Your task to perform on an android device: Open Chrome and go to settings Image 0: 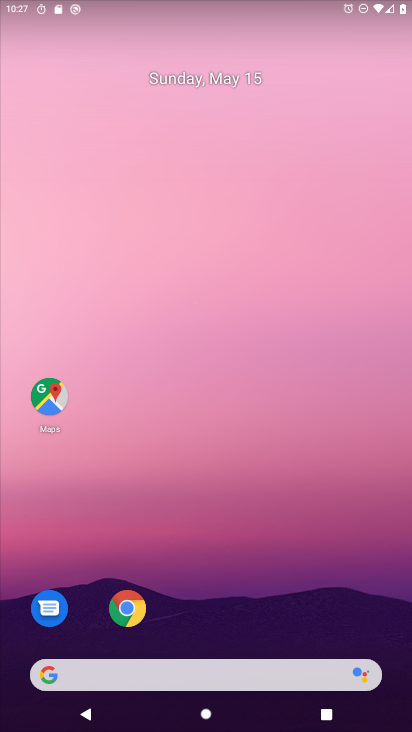
Step 0: drag from (216, 568) to (267, 111)
Your task to perform on an android device: Open Chrome and go to settings Image 1: 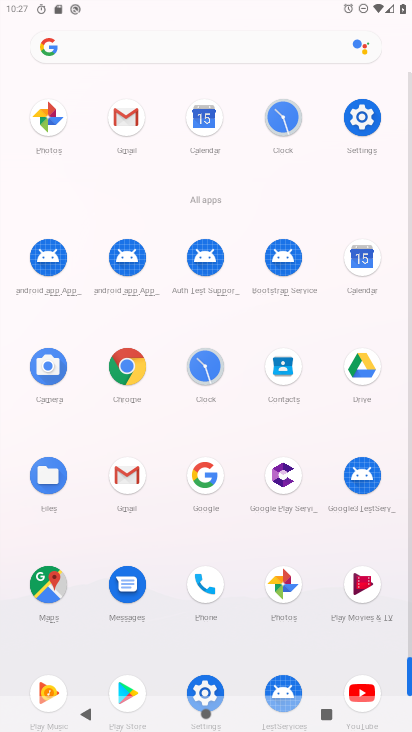
Step 1: click (132, 379)
Your task to perform on an android device: Open Chrome and go to settings Image 2: 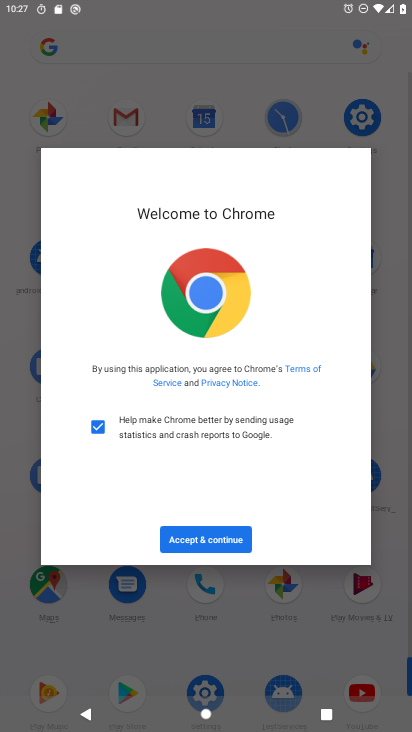
Step 2: click (180, 544)
Your task to perform on an android device: Open Chrome and go to settings Image 3: 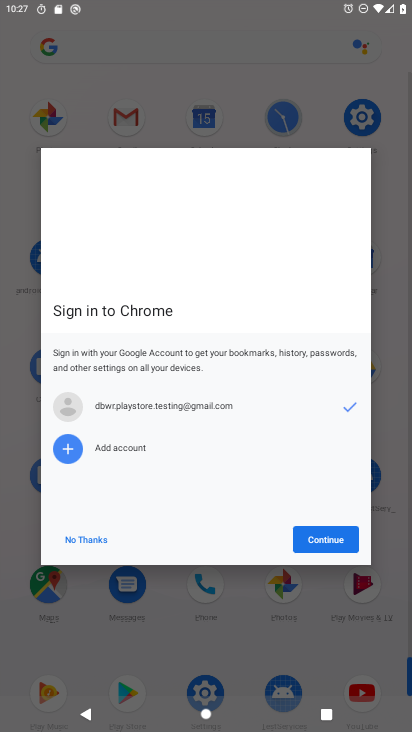
Step 3: click (320, 540)
Your task to perform on an android device: Open Chrome and go to settings Image 4: 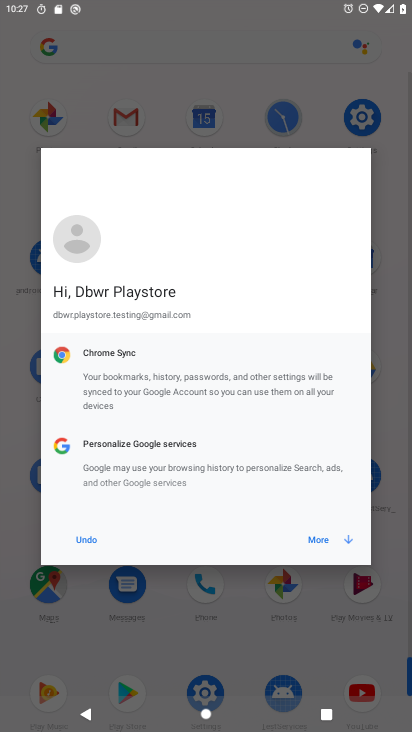
Step 4: click (320, 540)
Your task to perform on an android device: Open Chrome and go to settings Image 5: 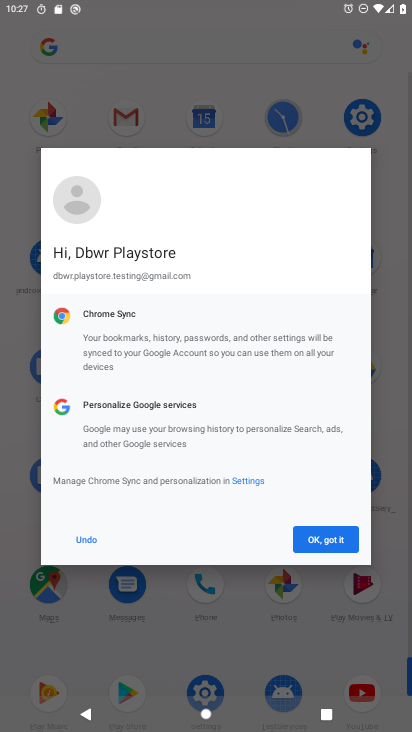
Step 5: click (320, 540)
Your task to perform on an android device: Open Chrome and go to settings Image 6: 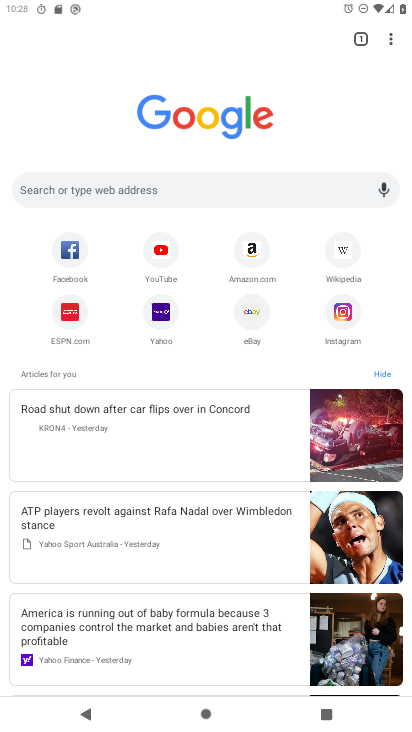
Step 6: task complete